Your task to perform on an android device: Open Maps and search for coffee Image 0: 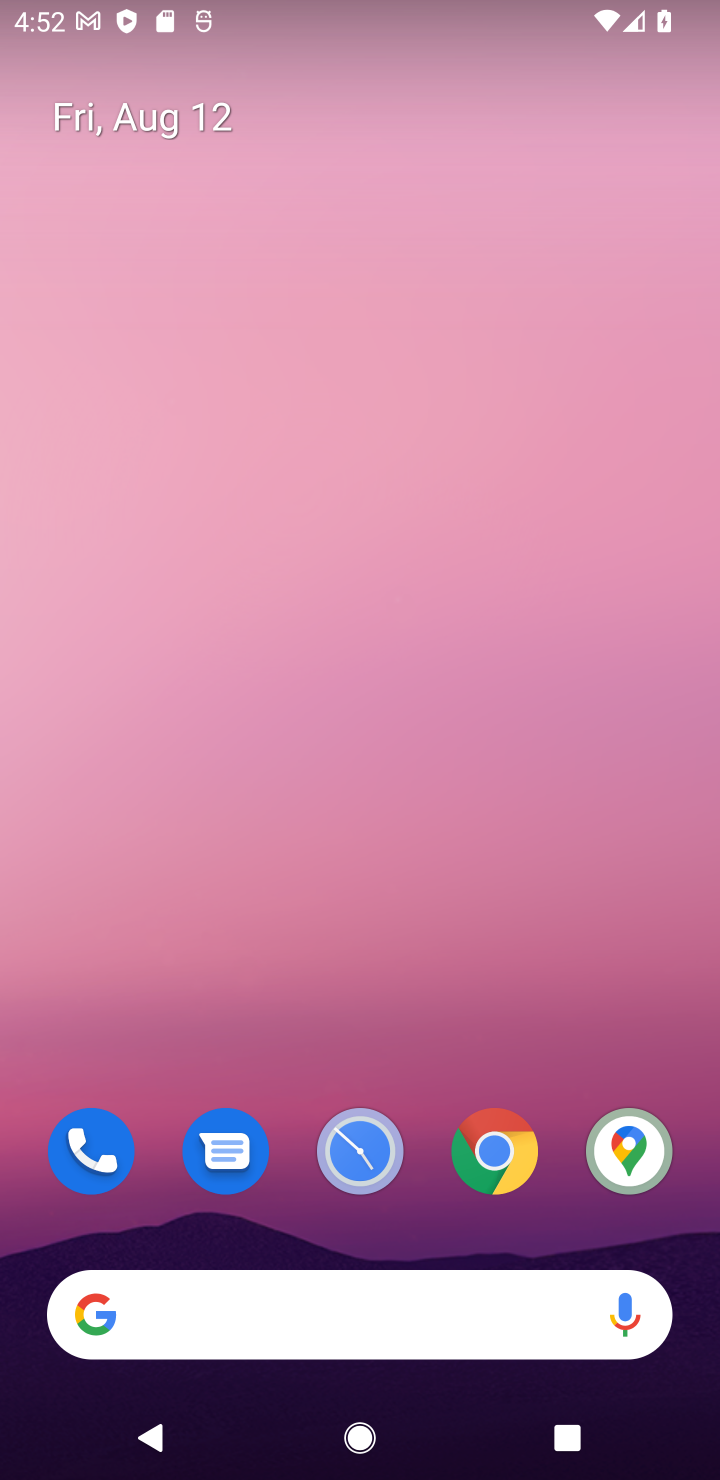
Step 0: drag from (412, 1036) to (537, 120)
Your task to perform on an android device: Open Maps and search for coffee Image 1: 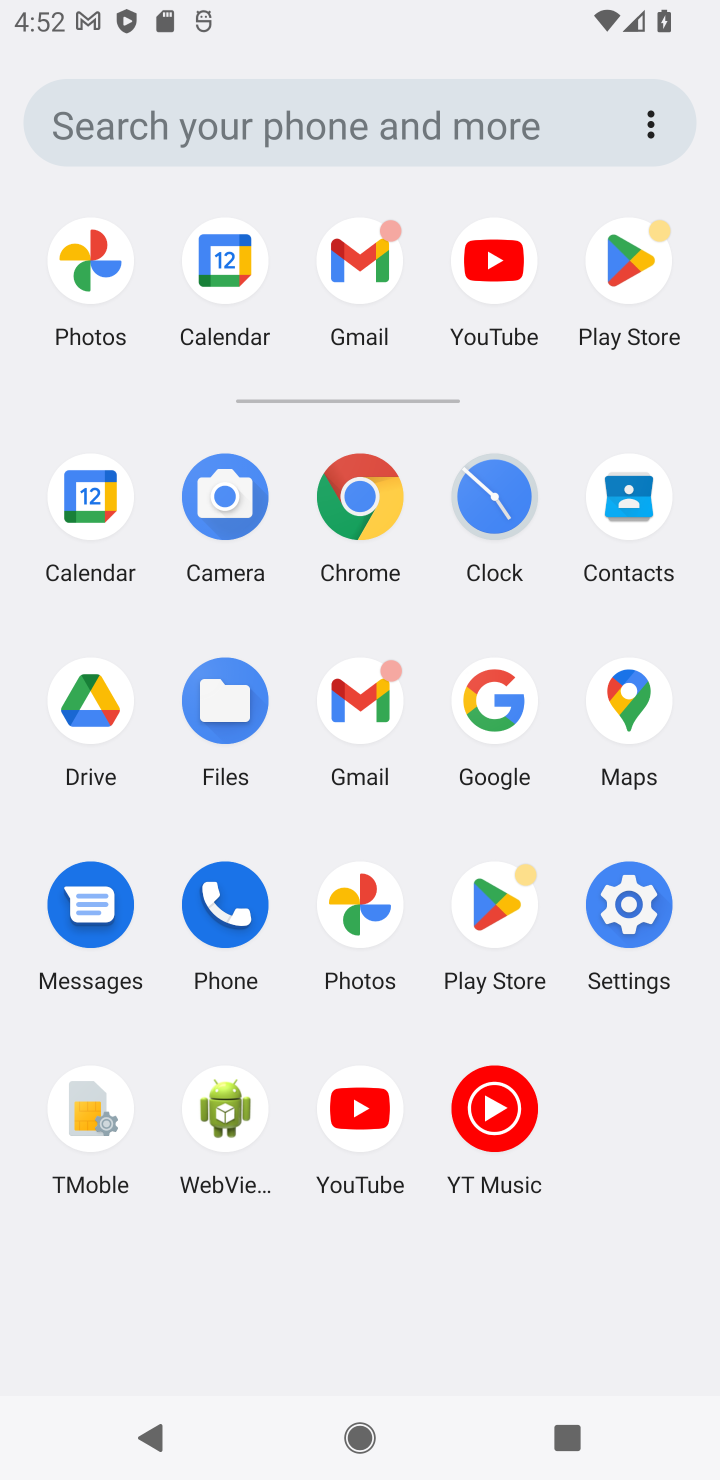
Step 1: click (629, 708)
Your task to perform on an android device: Open Maps and search for coffee Image 2: 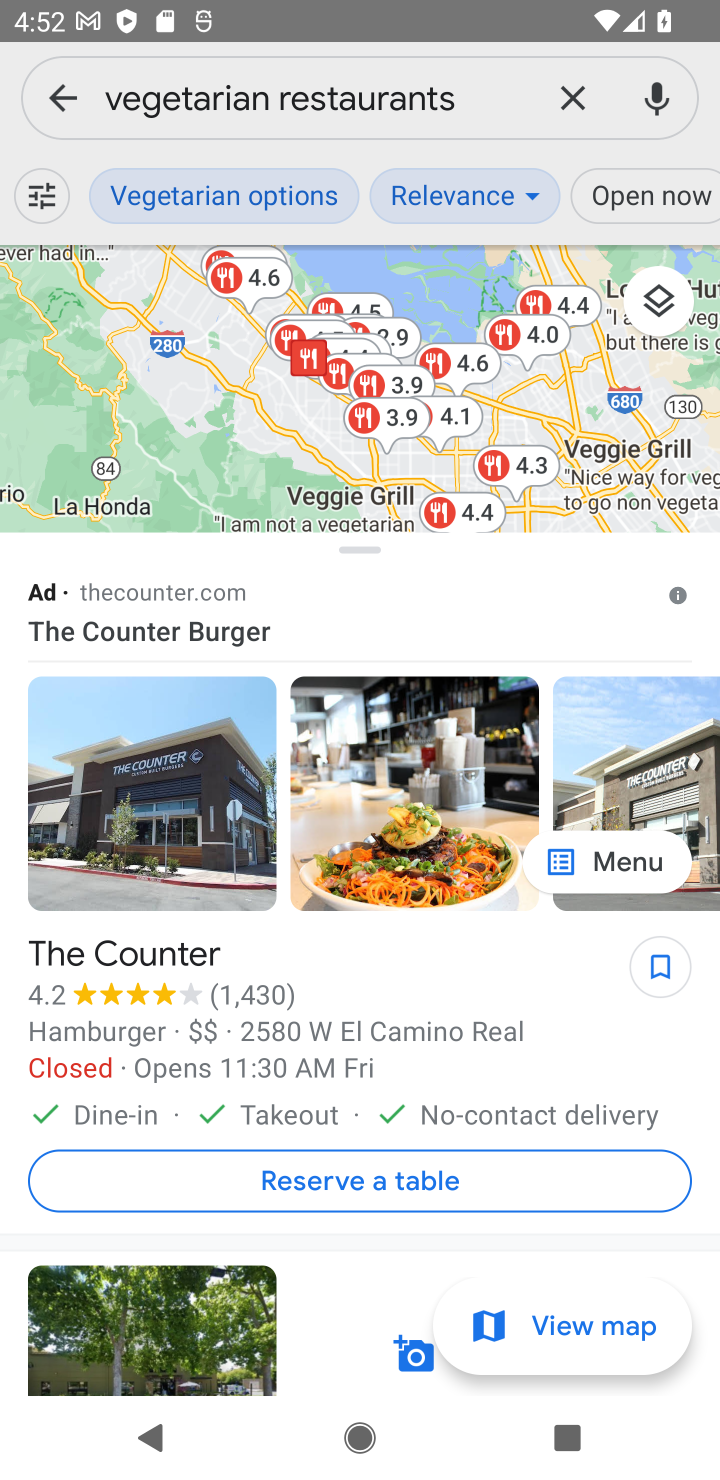
Step 2: click (570, 99)
Your task to perform on an android device: Open Maps and search for coffee Image 3: 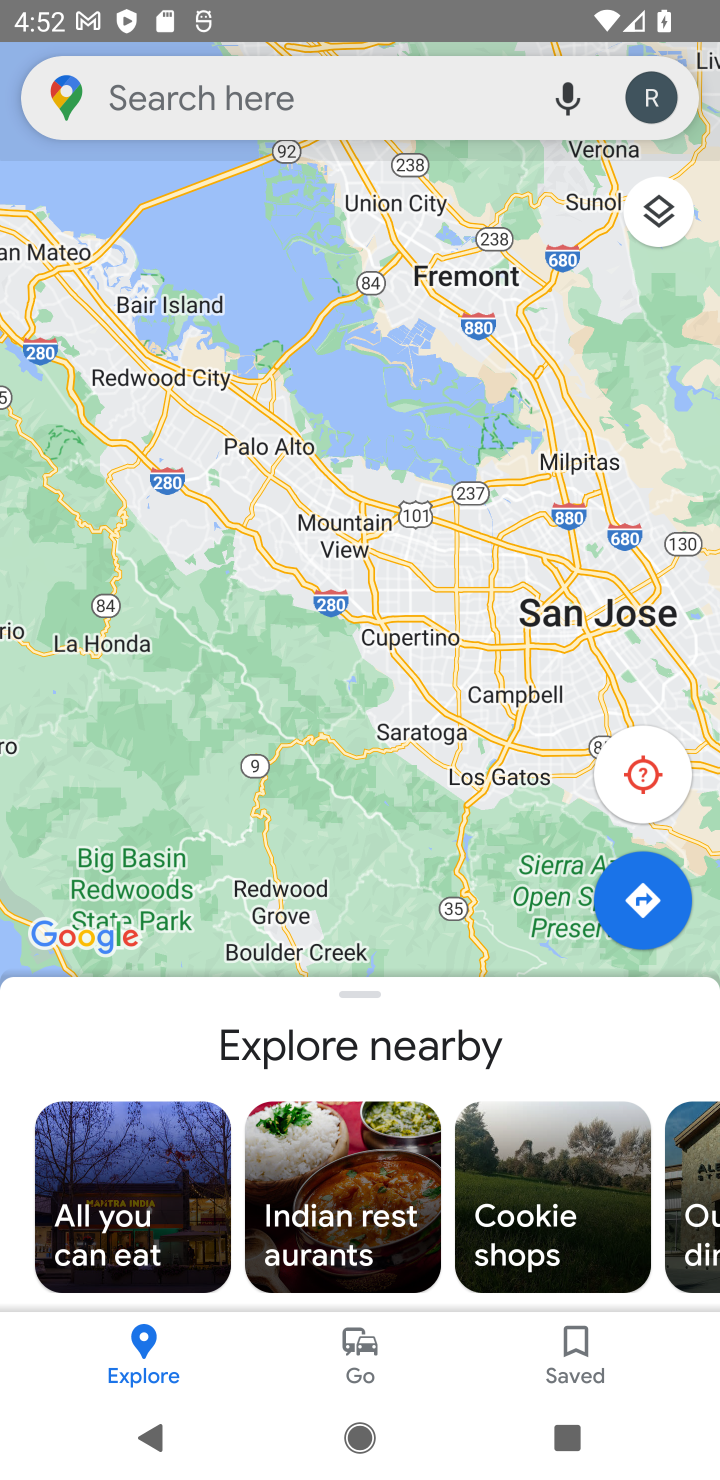
Step 3: click (350, 78)
Your task to perform on an android device: Open Maps and search for coffee Image 4: 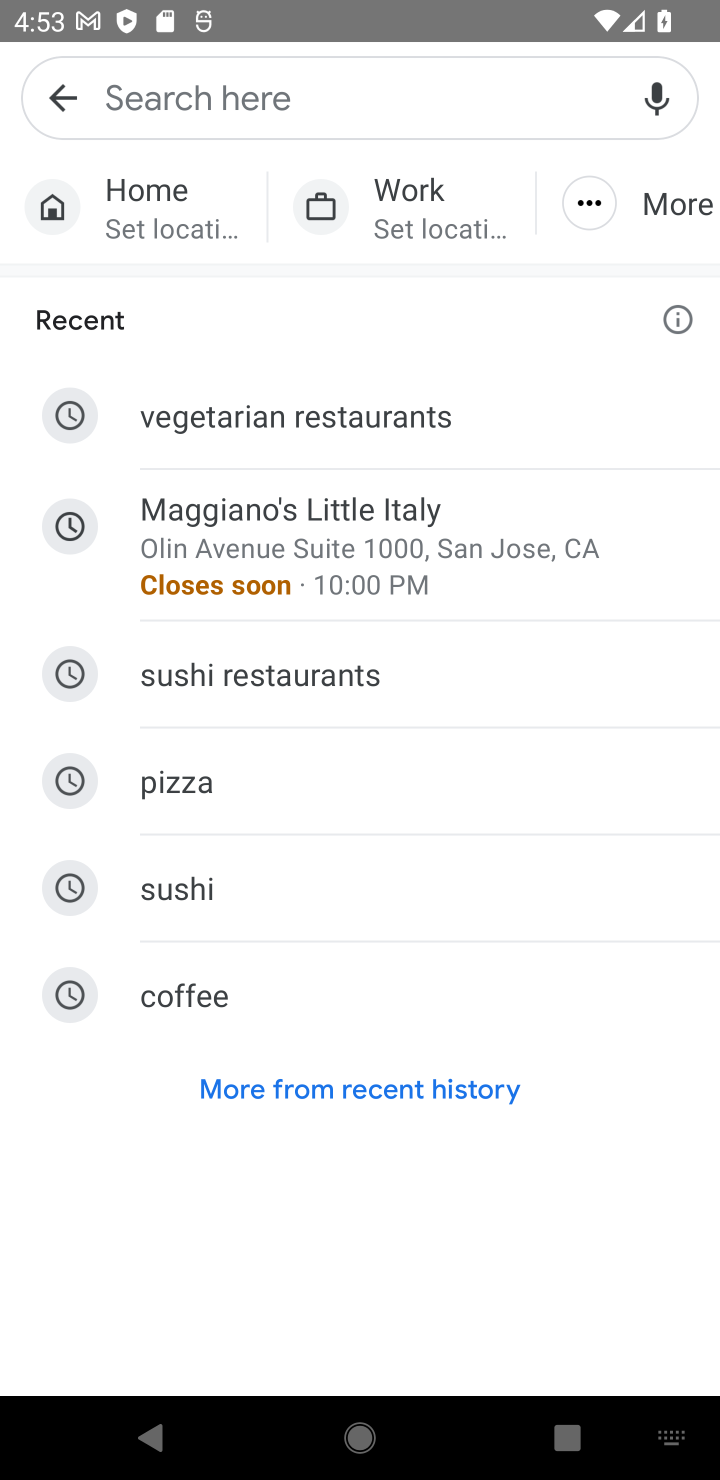
Step 4: type "coffee"
Your task to perform on an android device: Open Maps and search for coffee Image 5: 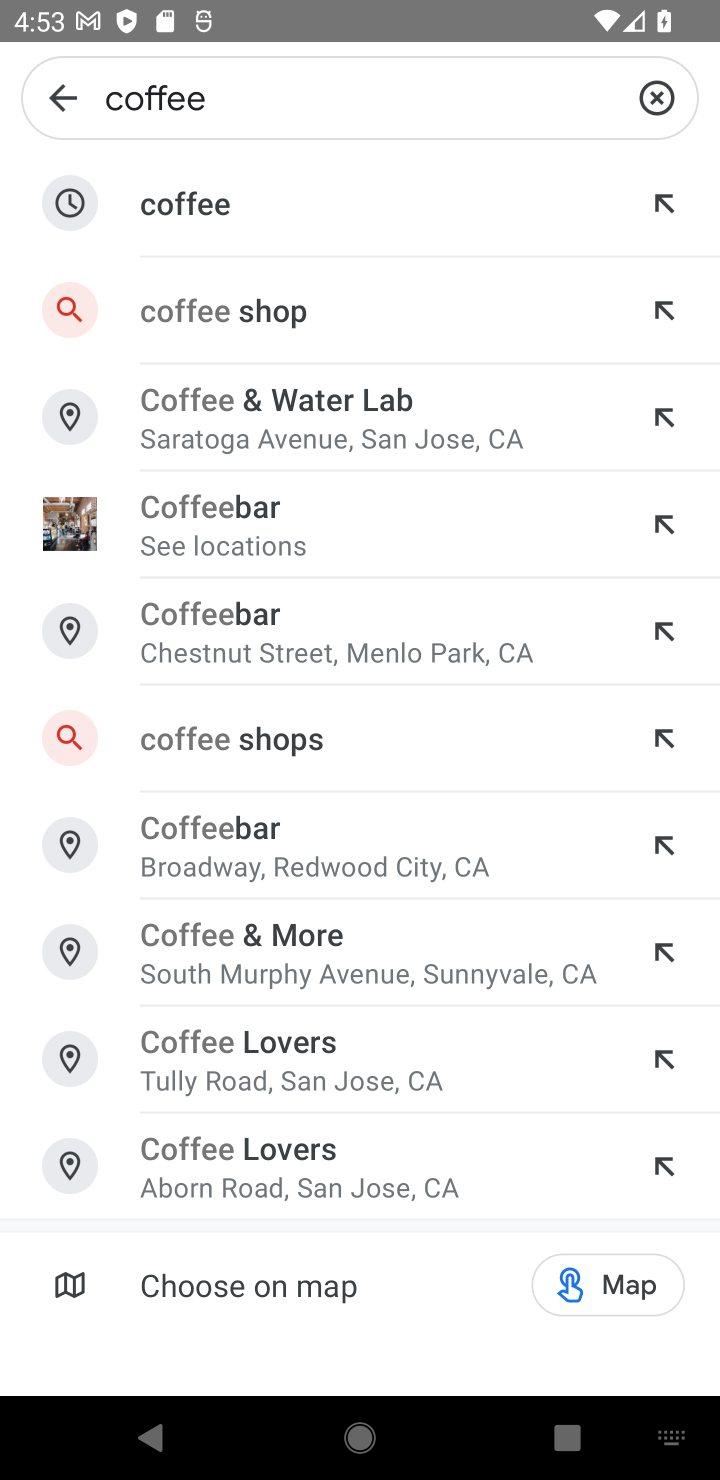
Step 5: click (222, 215)
Your task to perform on an android device: Open Maps and search for coffee Image 6: 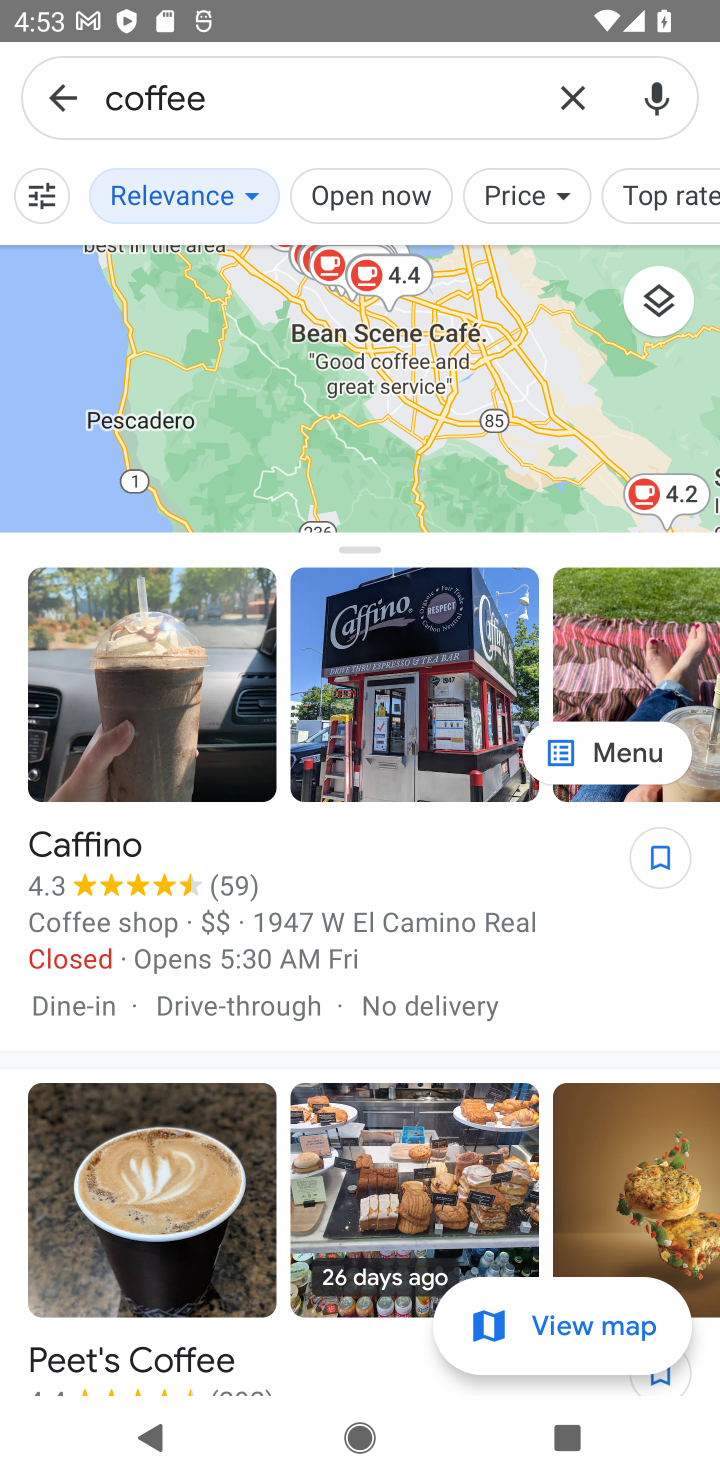
Step 6: task complete